Your task to perform on an android device: add a label to a message in the gmail app Image 0: 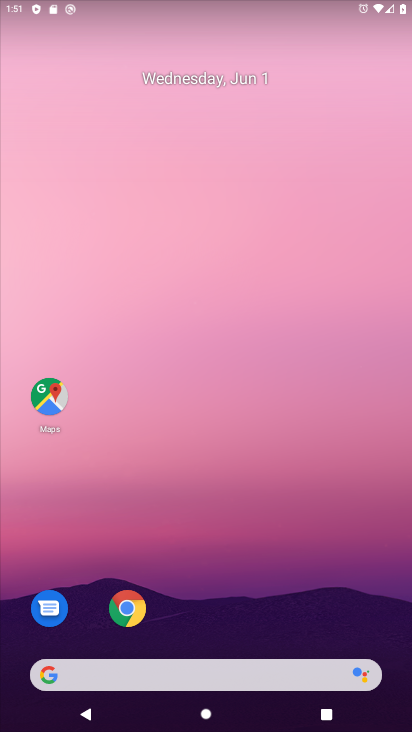
Step 0: drag from (126, 647) to (243, 101)
Your task to perform on an android device: add a label to a message in the gmail app Image 1: 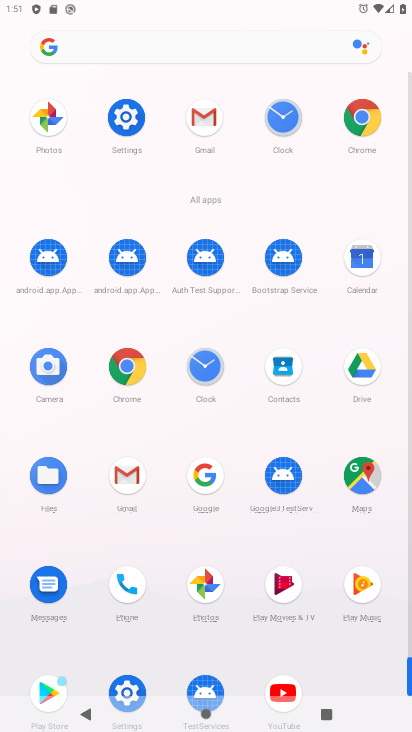
Step 1: click (127, 483)
Your task to perform on an android device: add a label to a message in the gmail app Image 2: 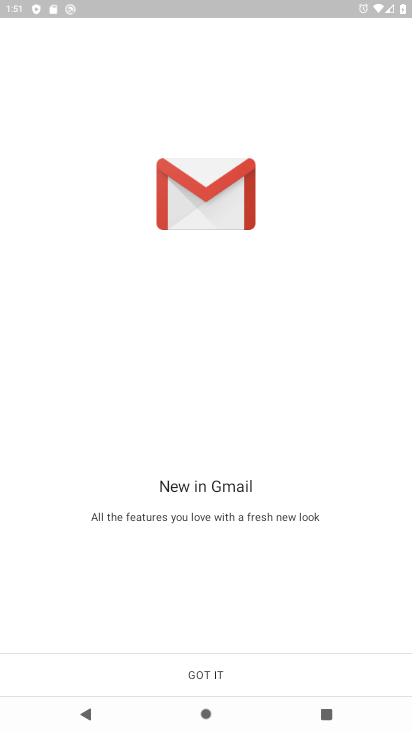
Step 2: click (204, 661)
Your task to perform on an android device: add a label to a message in the gmail app Image 3: 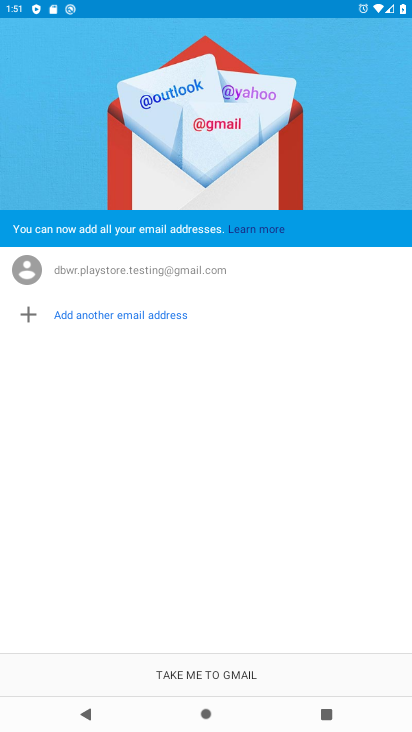
Step 3: click (208, 661)
Your task to perform on an android device: add a label to a message in the gmail app Image 4: 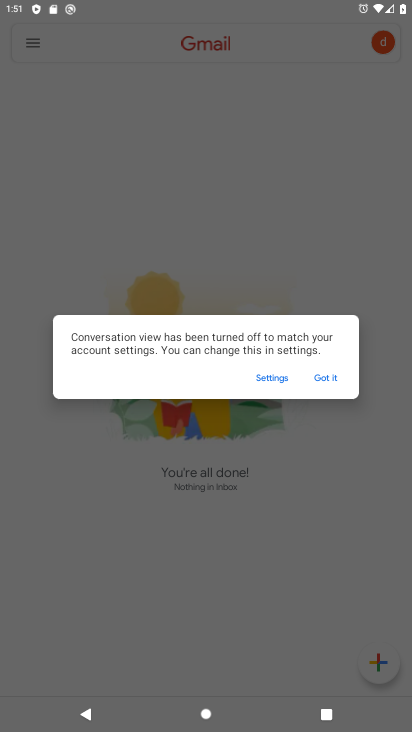
Step 4: click (333, 387)
Your task to perform on an android device: add a label to a message in the gmail app Image 5: 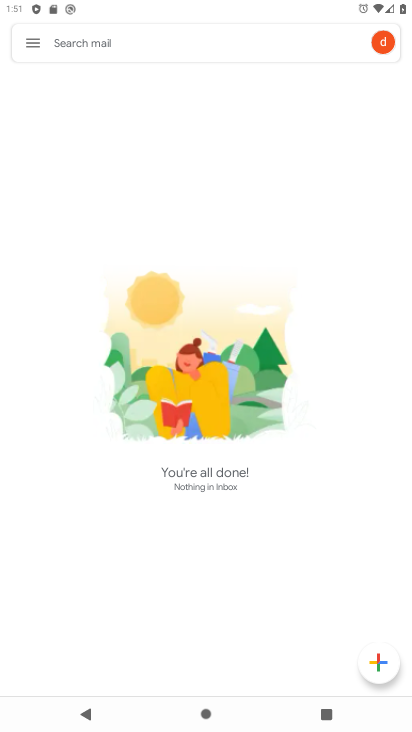
Step 5: click (39, 41)
Your task to perform on an android device: add a label to a message in the gmail app Image 6: 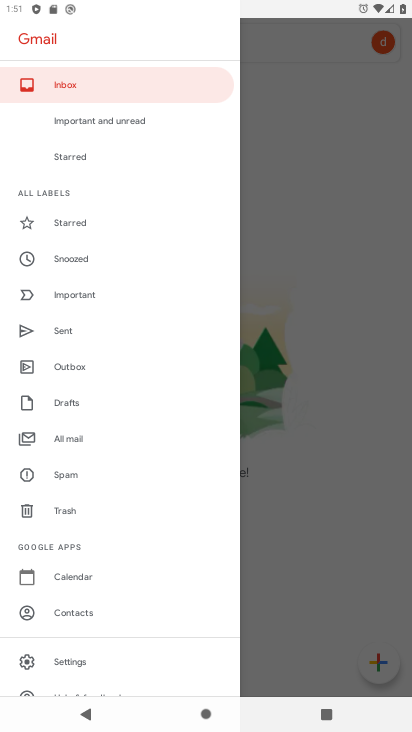
Step 6: click (137, 442)
Your task to perform on an android device: add a label to a message in the gmail app Image 7: 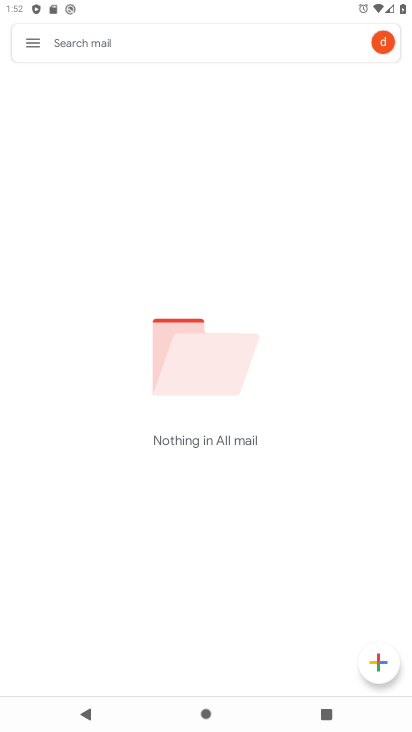
Step 7: task complete